Your task to perform on an android device: toggle javascript in the chrome app Image 0: 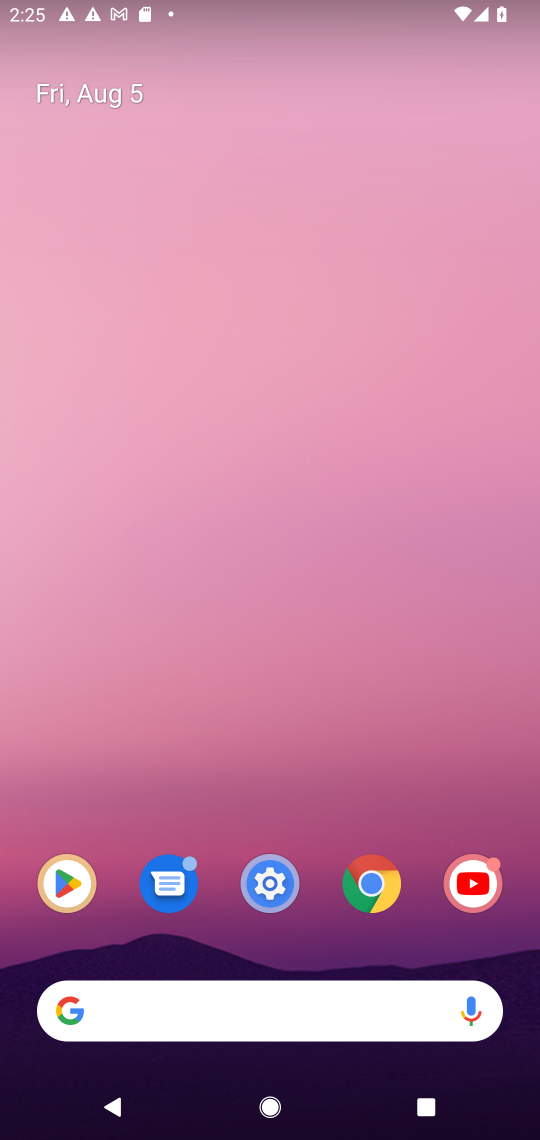
Step 0: press home button
Your task to perform on an android device: toggle javascript in the chrome app Image 1: 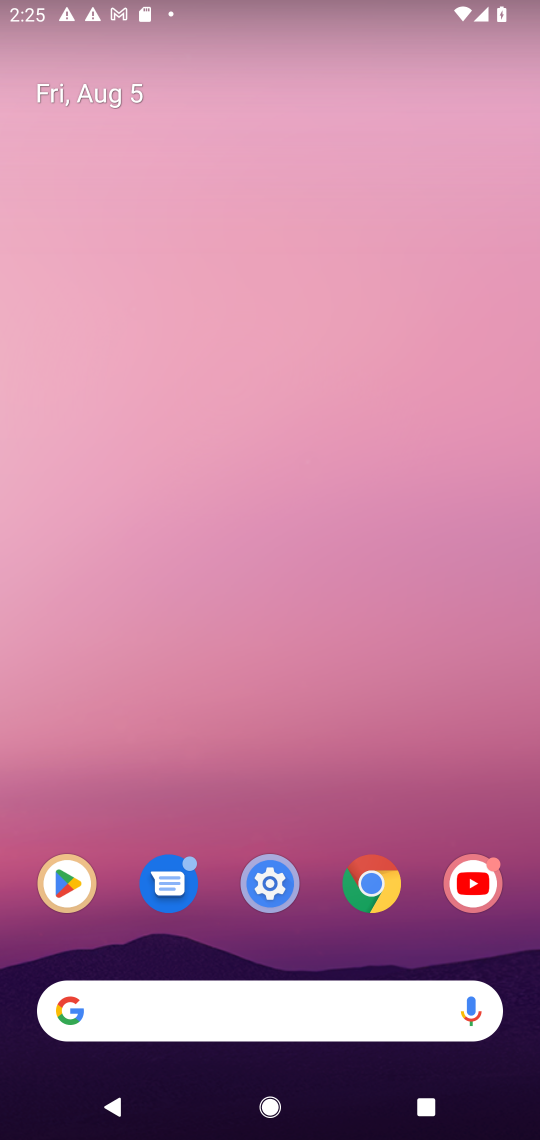
Step 1: press home button
Your task to perform on an android device: toggle javascript in the chrome app Image 2: 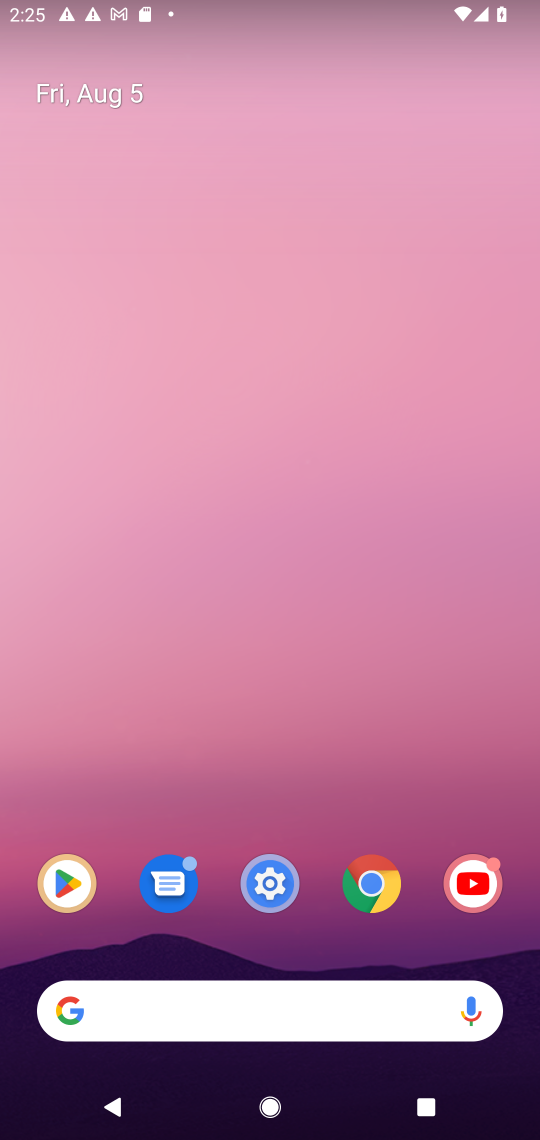
Step 2: click (373, 877)
Your task to perform on an android device: toggle javascript in the chrome app Image 3: 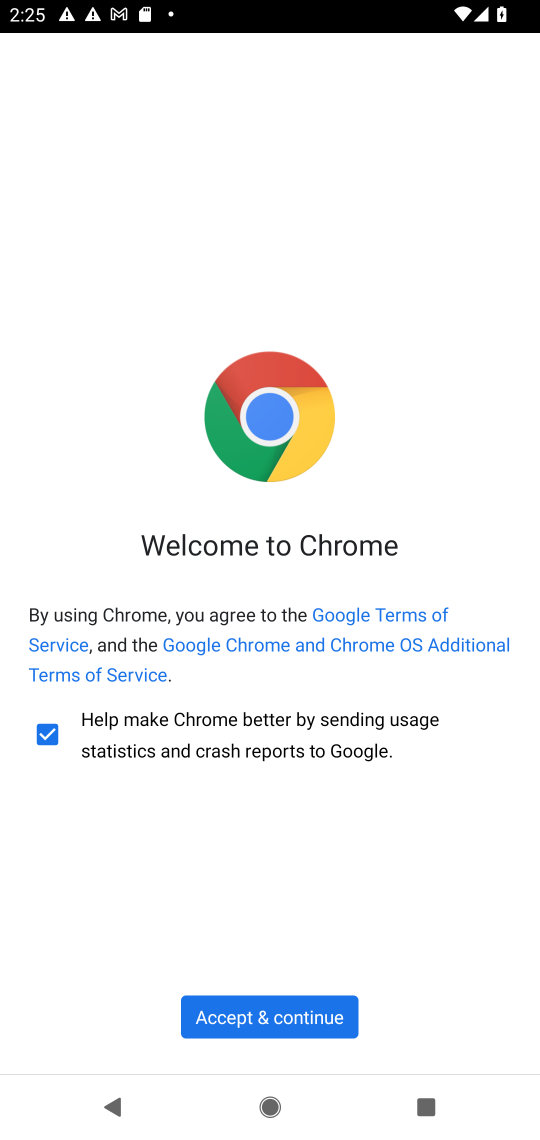
Step 3: click (260, 1020)
Your task to perform on an android device: toggle javascript in the chrome app Image 4: 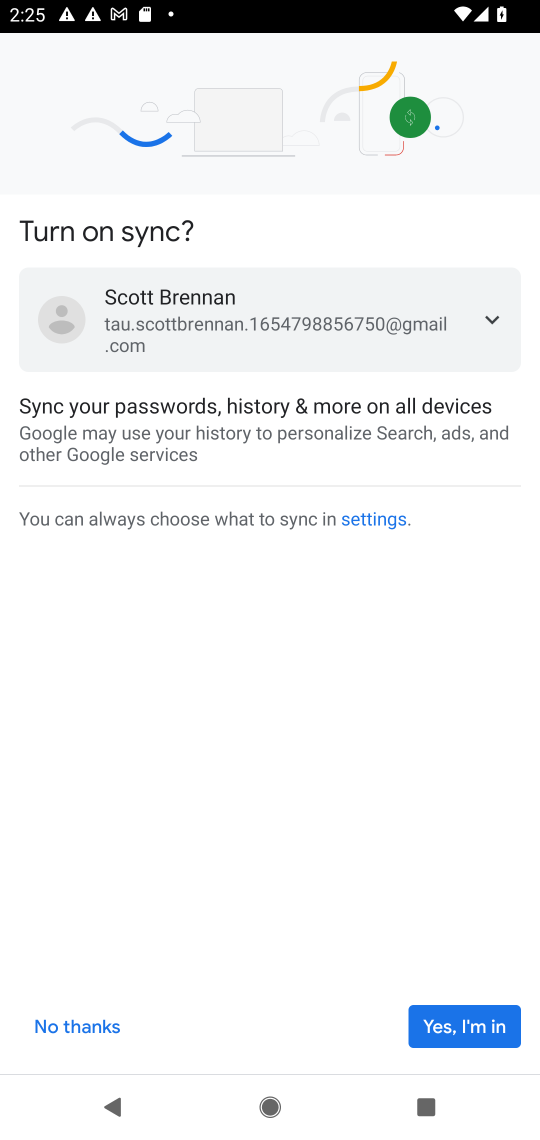
Step 4: click (426, 1021)
Your task to perform on an android device: toggle javascript in the chrome app Image 5: 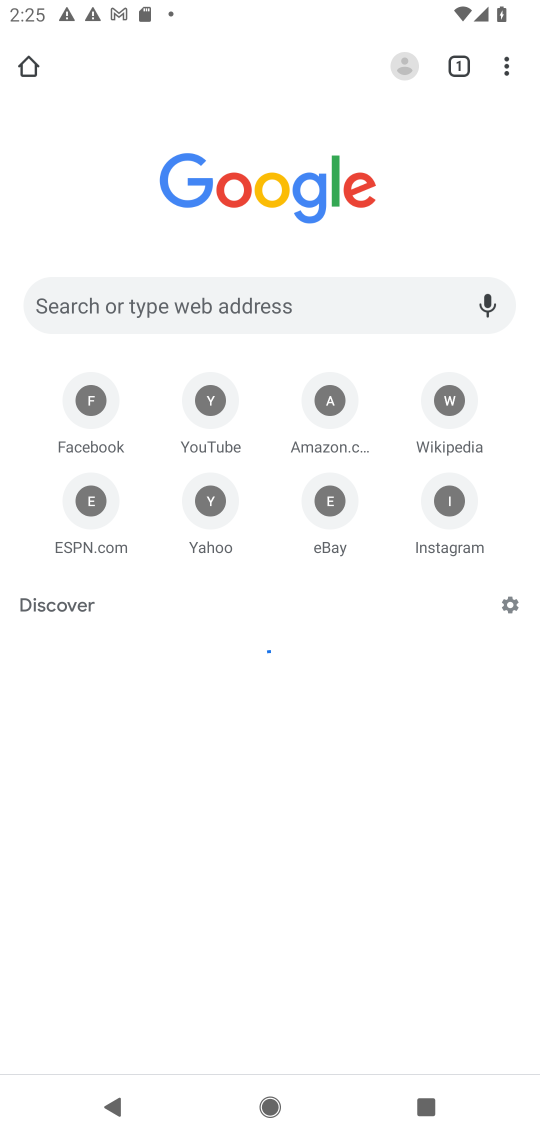
Step 5: click (503, 56)
Your task to perform on an android device: toggle javascript in the chrome app Image 6: 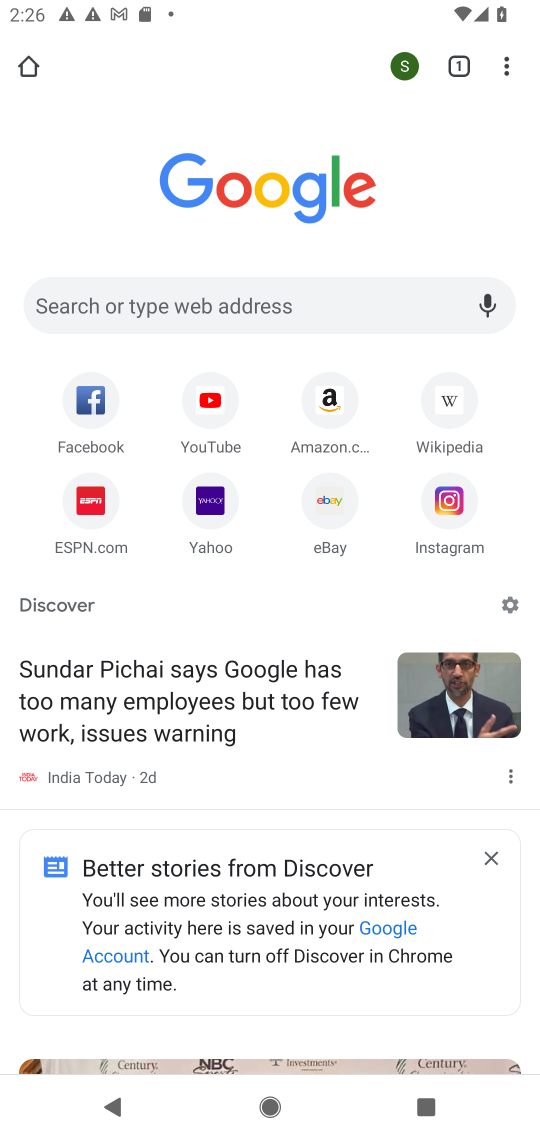
Step 6: click (514, 53)
Your task to perform on an android device: toggle javascript in the chrome app Image 7: 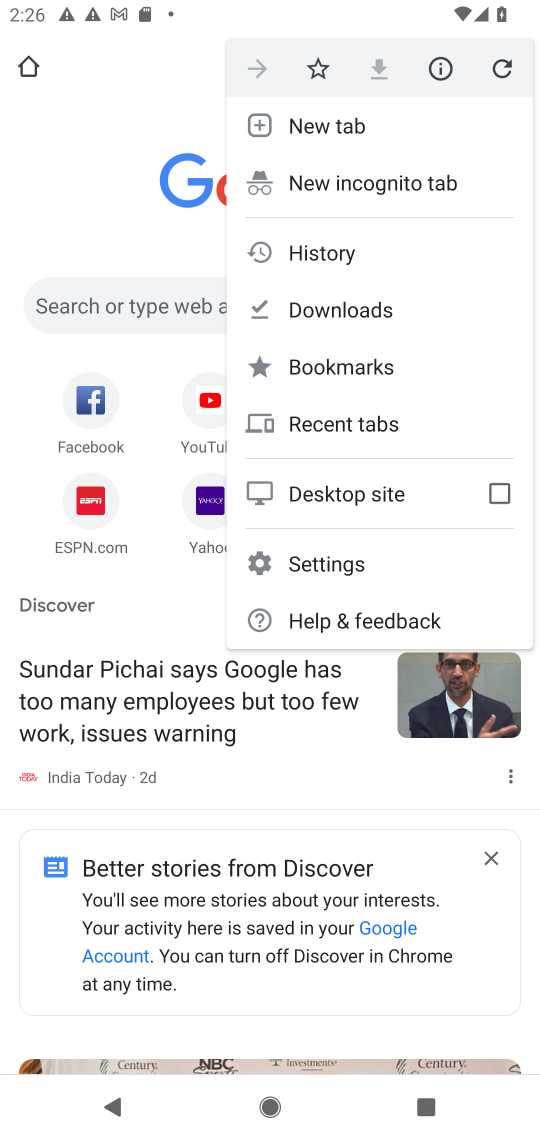
Step 7: click (319, 570)
Your task to perform on an android device: toggle javascript in the chrome app Image 8: 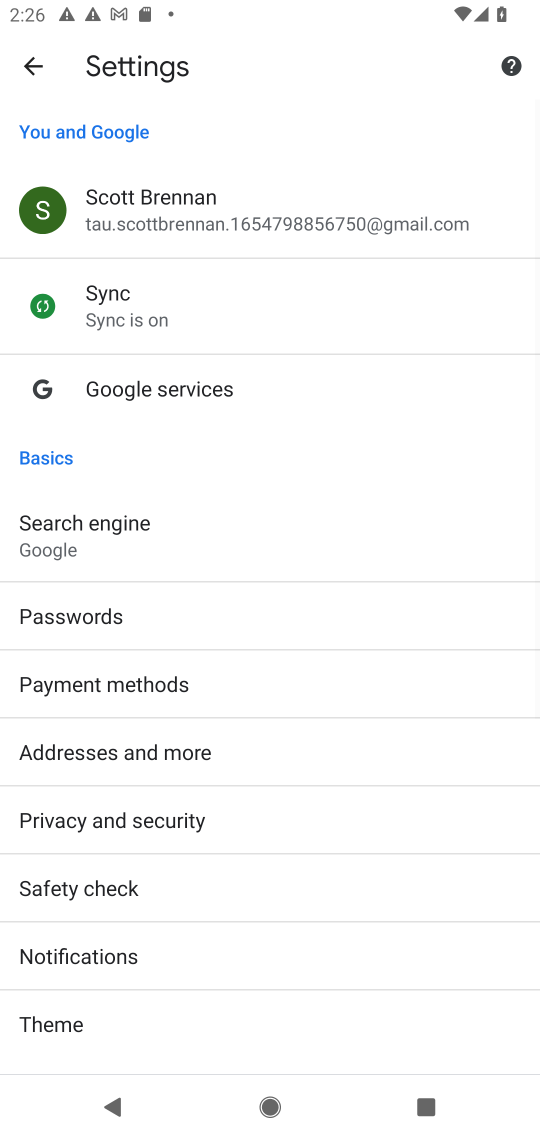
Step 8: drag from (230, 989) to (246, 194)
Your task to perform on an android device: toggle javascript in the chrome app Image 9: 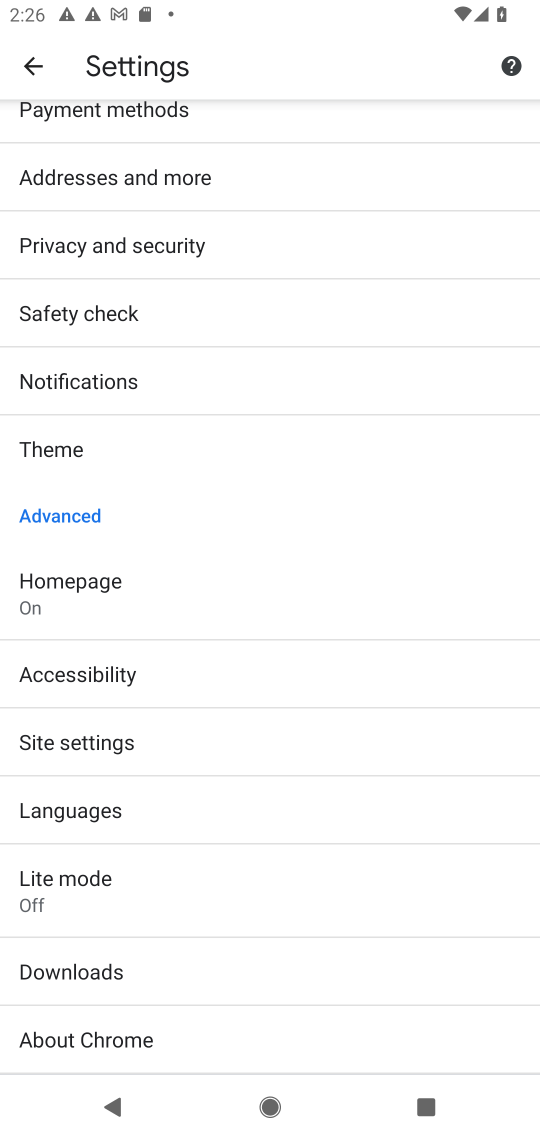
Step 9: click (154, 744)
Your task to perform on an android device: toggle javascript in the chrome app Image 10: 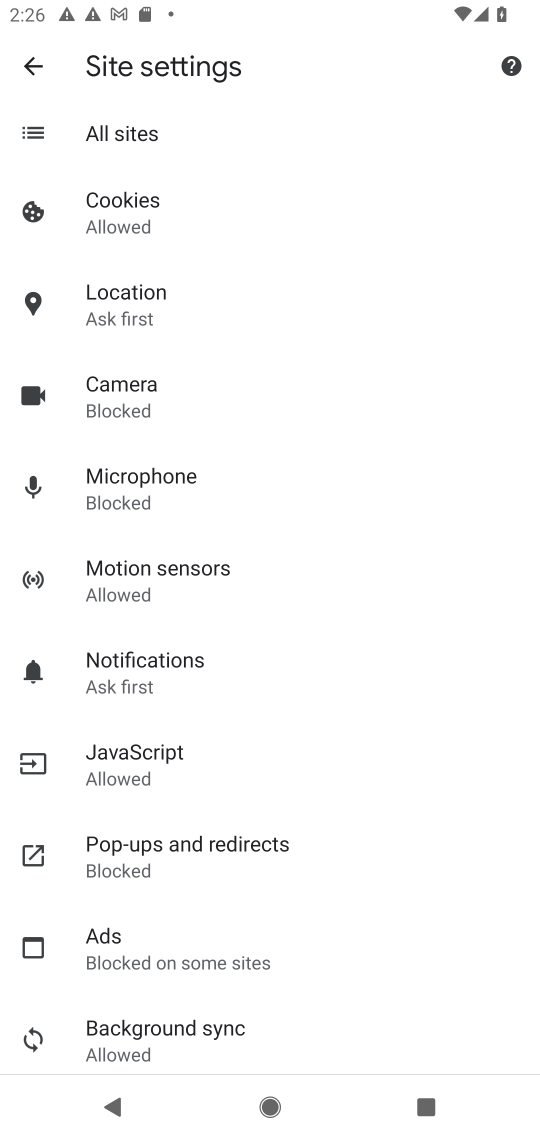
Step 10: click (196, 761)
Your task to perform on an android device: toggle javascript in the chrome app Image 11: 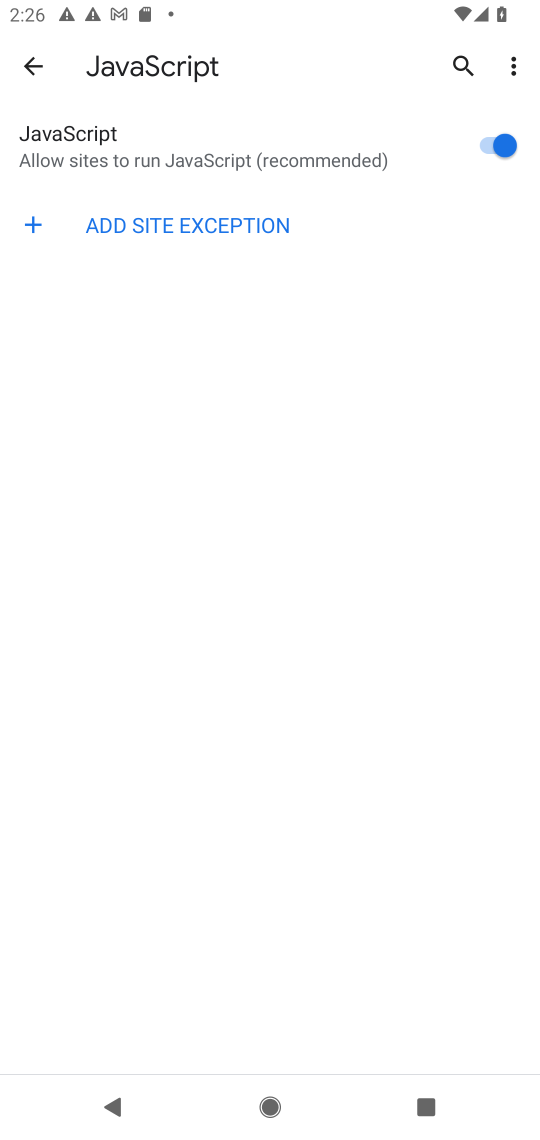
Step 11: click (487, 141)
Your task to perform on an android device: toggle javascript in the chrome app Image 12: 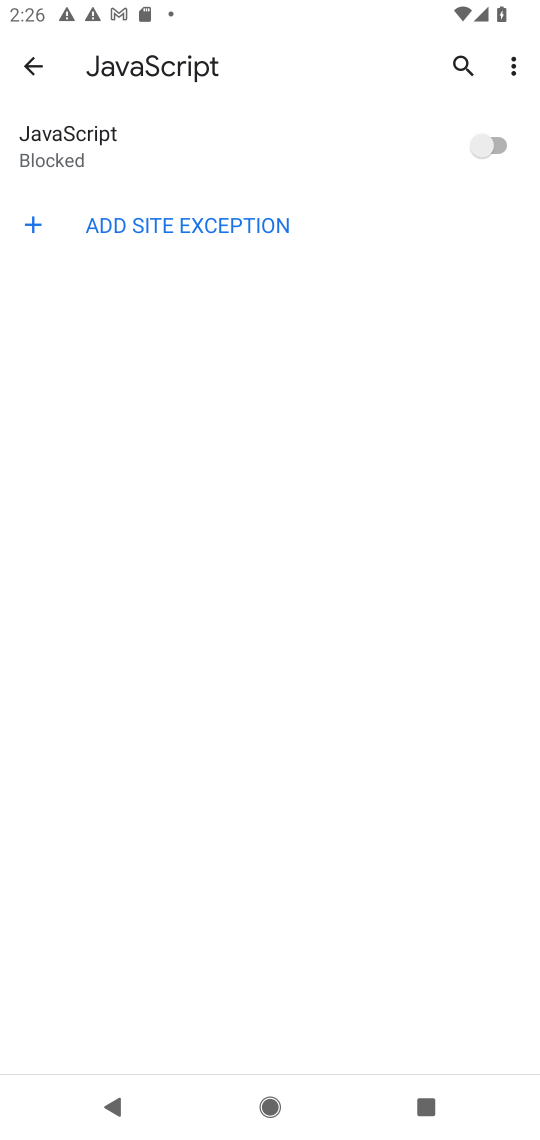
Step 12: task complete